Your task to perform on an android device: open a new tab in the chrome app Image 0: 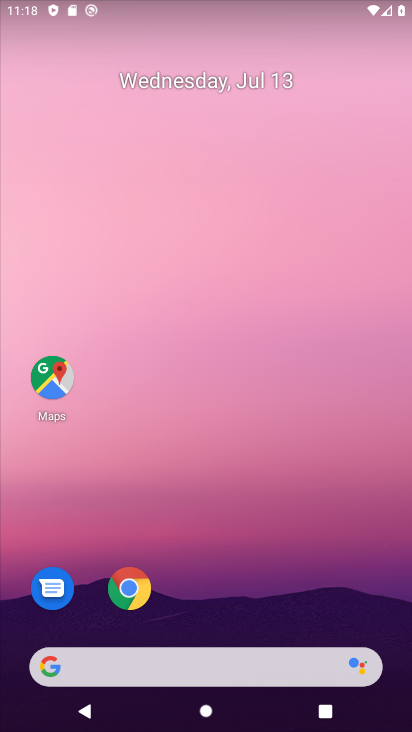
Step 0: click (124, 597)
Your task to perform on an android device: open a new tab in the chrome app Image 1: 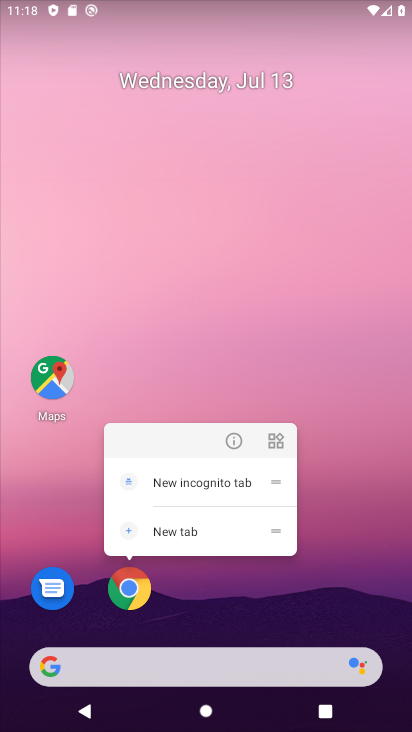
Step 1: click (122, 574)
Your task to perform on an android device: open a new tab in the chrome app Image 2: 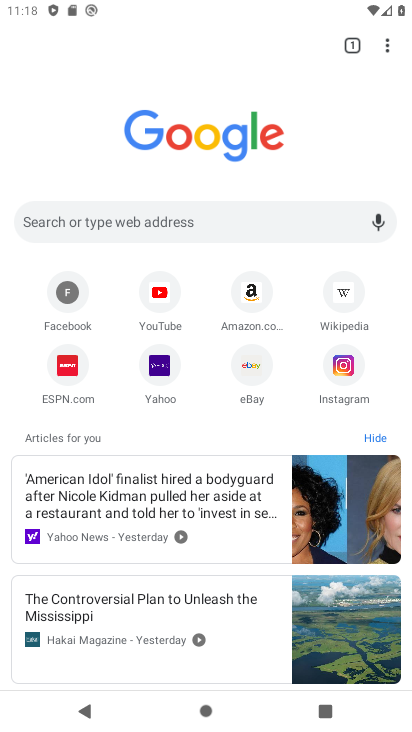
Step 2: click (386, 43)
Your task to perform on an android device: open a new tab in the chrome app Image 3: 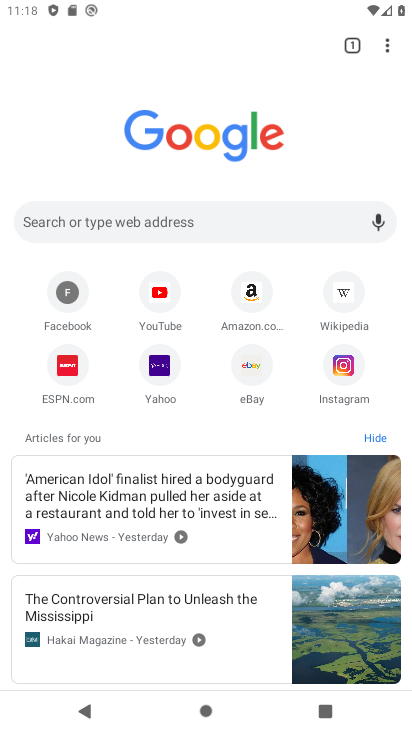
Step 3: click (386, 43)
Your task to perform on an android device: open a new tab in the chrome app Image 4: 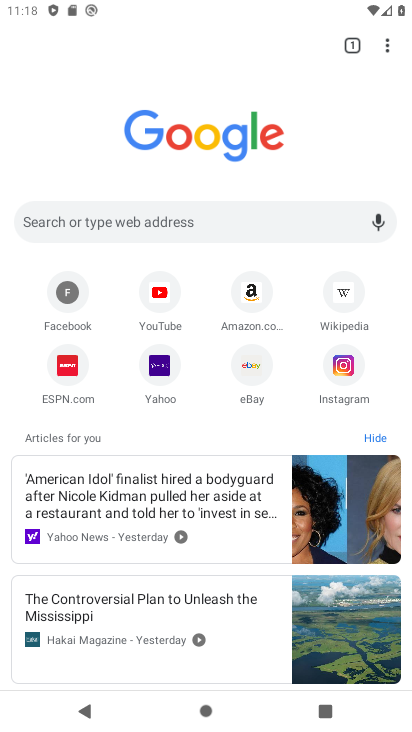
Step 4: click (386, 43)
Your task to perform on an android device: open a new tab in the chrome app Image 5: 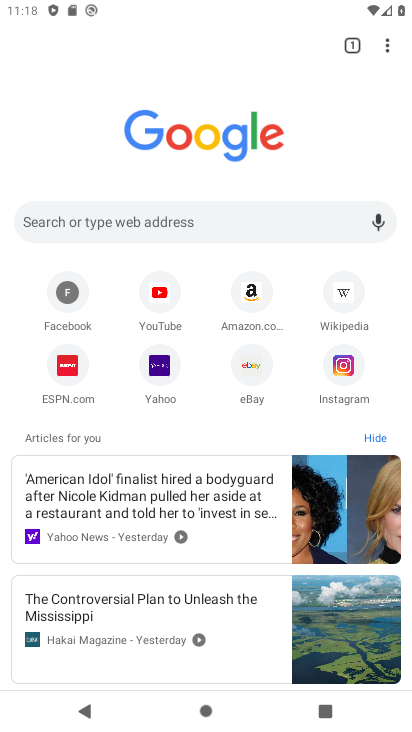
Step 5: click (386, 43)
Your task to perform on an android device: open a new tab in the chrome app Image 6: 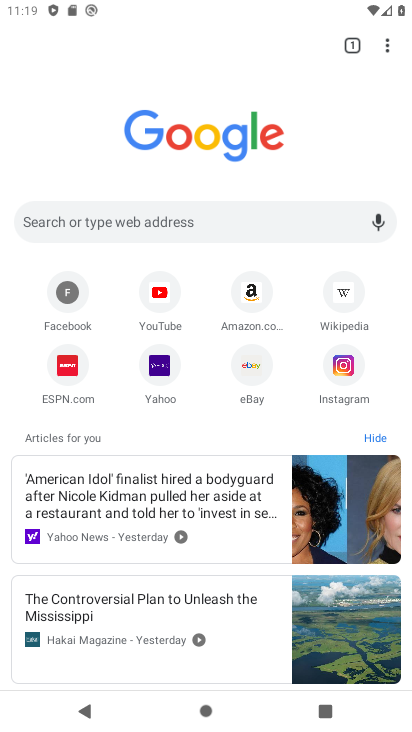
Step 6: click (389, 47)
Your task to perform on an android device: open a new tab in the chrome app Image 7: 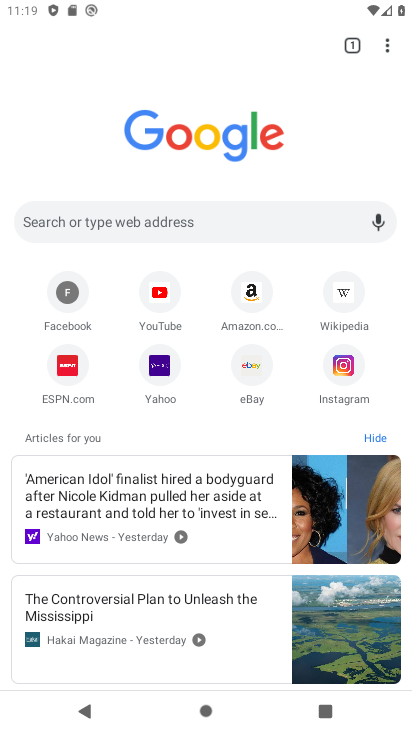
Step 7: click (389, 47)
Your task to perform on an android device: open a new tab in the chrome app Image 8: 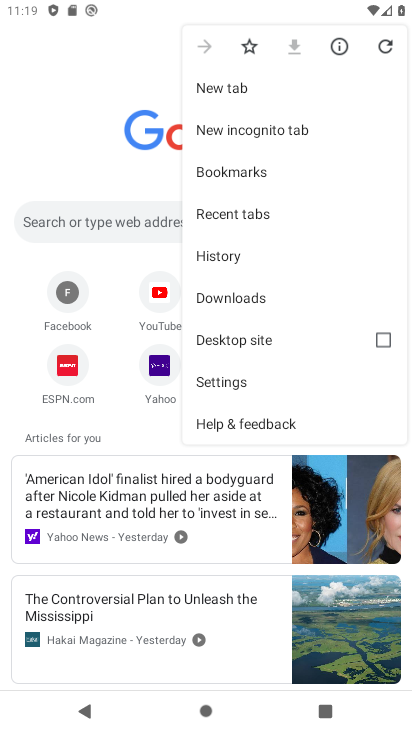
Step 8: click (233, 81)
Your task to perform on an android device: open a new tab in the chrome app Image 9: 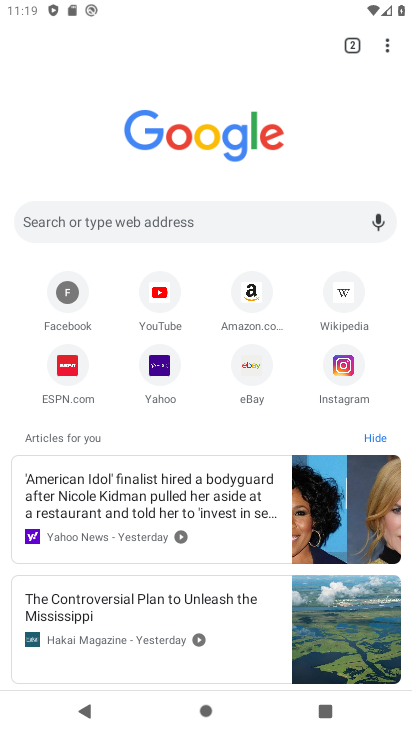
Step 9: task complete